Your task to perform on an android device: turn notification dots off Image 0: 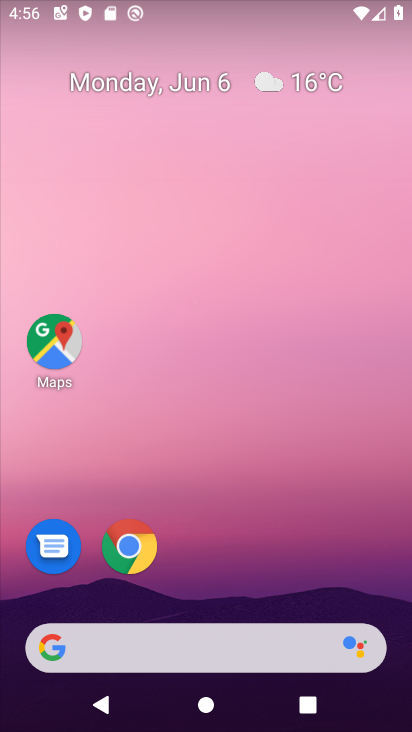
Step 0: drag from (214, 562) to (216, 261)
Your task to perform on an android device: turn notification dots off Image 1: 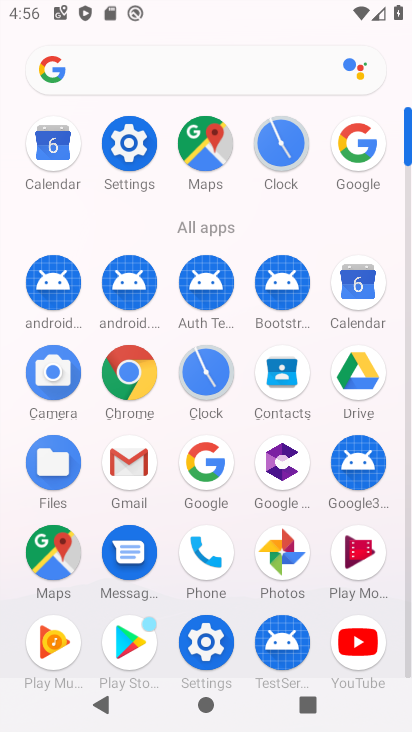
Step 1: click (127, 141)
Your task to perform on an android device: turn notification dots off Image 2: 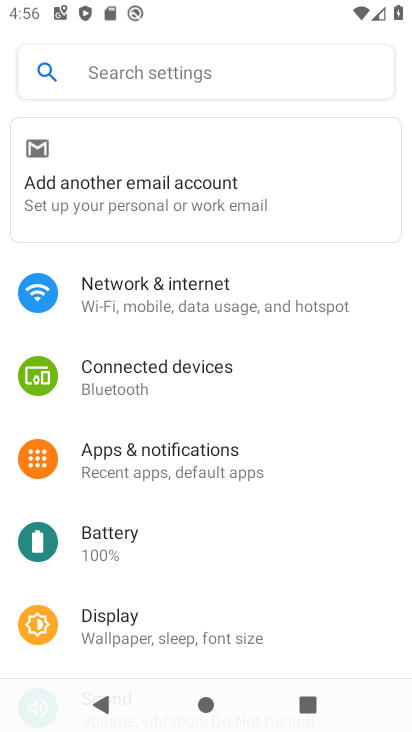
Step 2: click (174, 470)
Your task to perform on an android device: turn notification dots off Image 3: 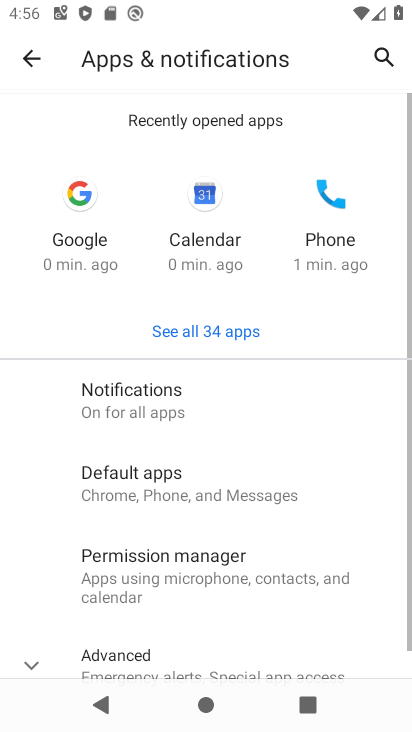
Step 3: click (143, 413)
Your task to perform on an android device: turn notification dots off Image 4: 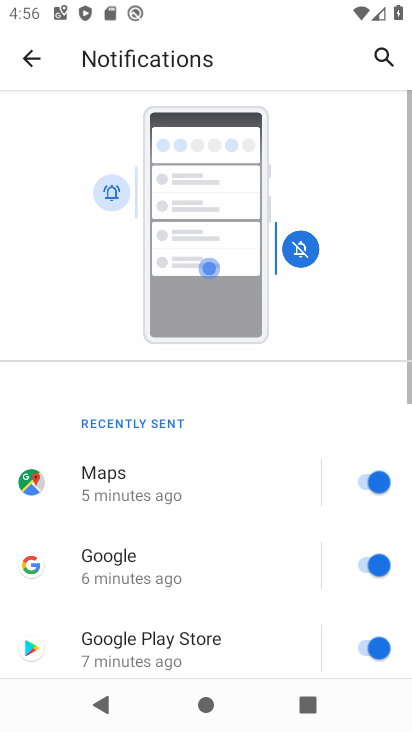
Step 4: drag from (176, 646) to (169, 260)
Your task to perform on an android device: turn notification dots off Image 5: 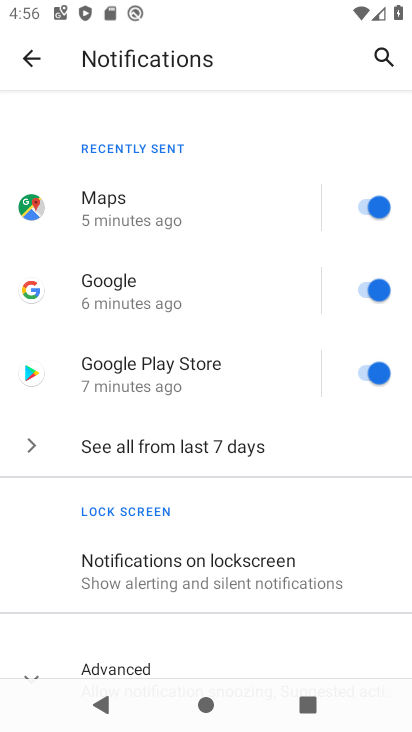
Step 5: drag from (177, 622) to (173, 202)
Your task to perform on an android device: turn notification dots off Image 6: 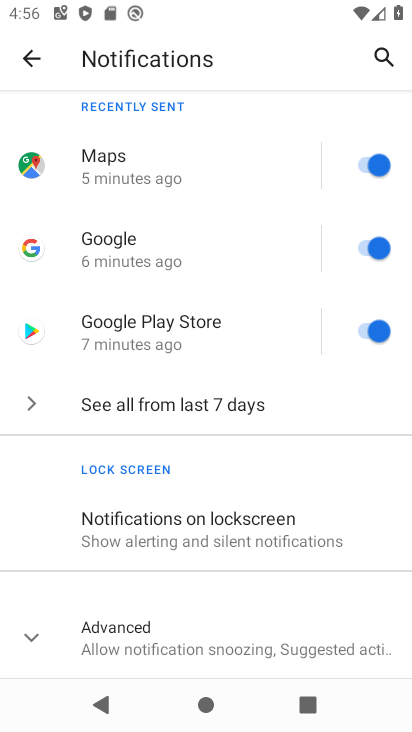
Step 6: click (152, 640)
Your task to perform on an android device: turn notification dots off Image 7: 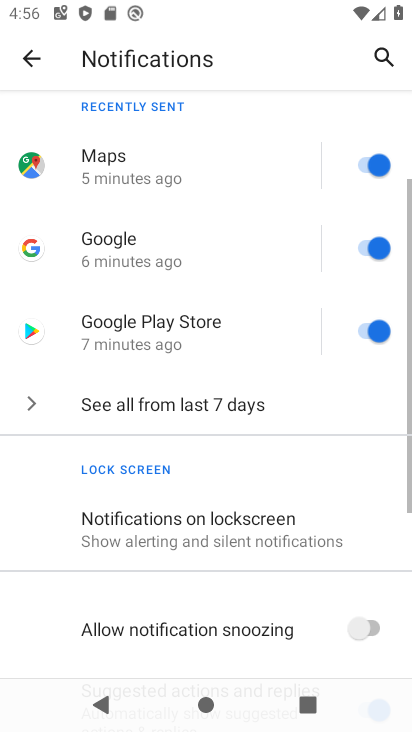
Step 7: drag from (274, 651) to (274, 301)
Your task to perform on an android device: turn notification dots off Image 8: 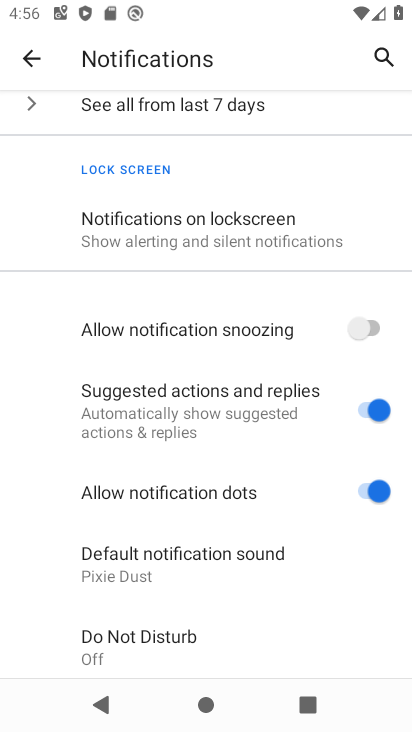
Step 8: click (356, 488)
Your task to perform on an android device: turn notification dots off Image 9: 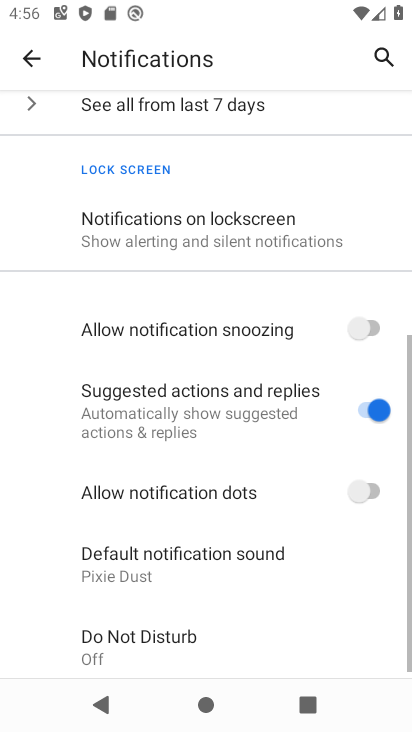
Step 9: task complete